Your task to perform on an android device: Open privacy settings Image 0: 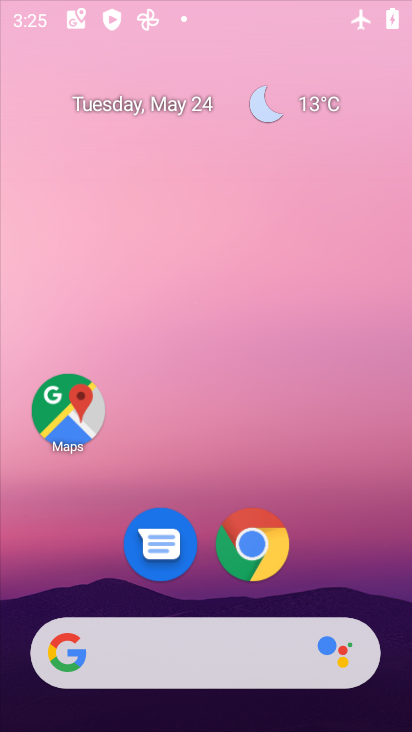
Step 0: drag from (361, 533) to (344, 116)
Your task to perform on an android device: Open privacy settings Image 1: 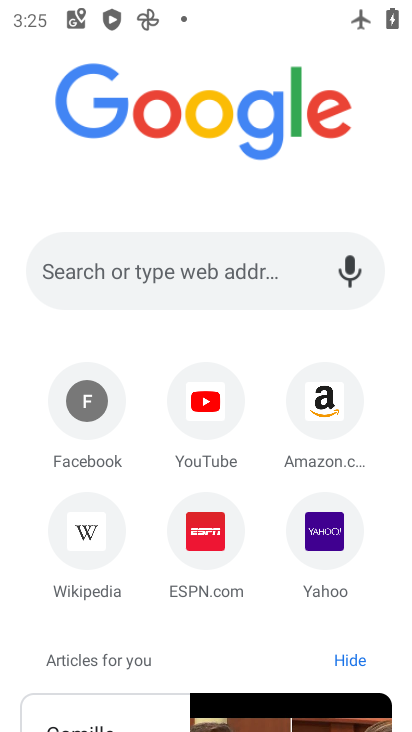
Step 1: drag from (363, 130) to (406, 530)
Your task to perform on an android device: Open privacy settings Image 2: 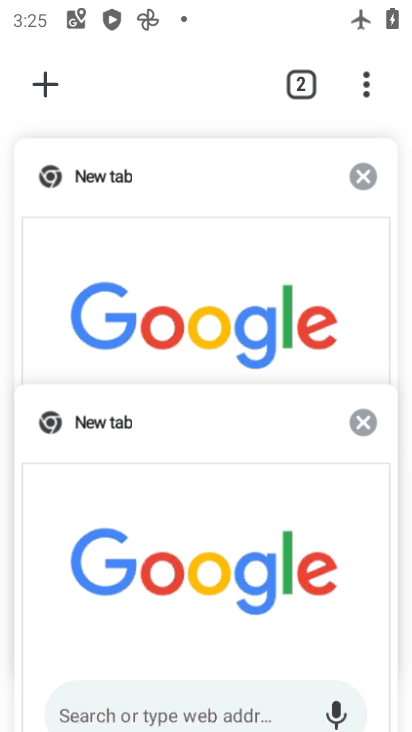
Step 2: click (366, 91)
Your task to perform on an android device: Open privacy settings Image 3: 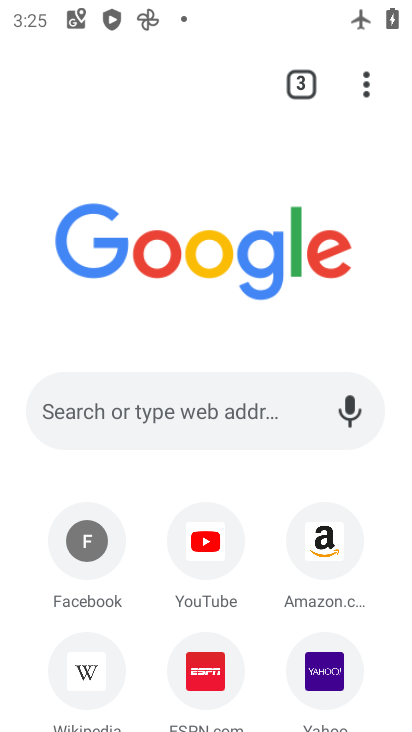
Step 3: drag from (366, 91) to (151, 596)
Your task to perform on an android device: Open privacy settings Image 4: 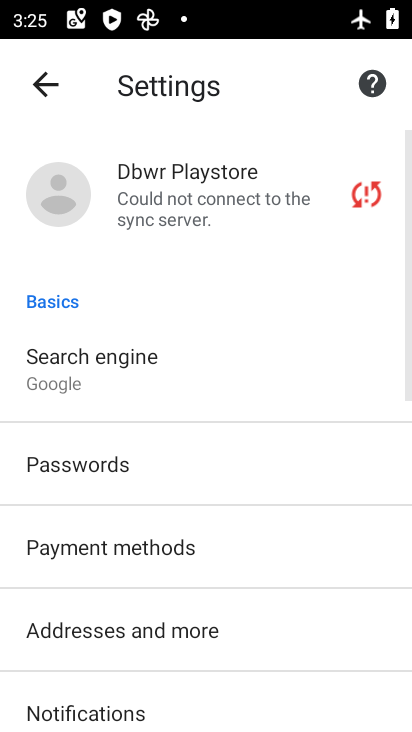
Step 4: drag from (155, 602) to (175, 260)
Your task to perform on an android device: Open privacy settings Image 5: 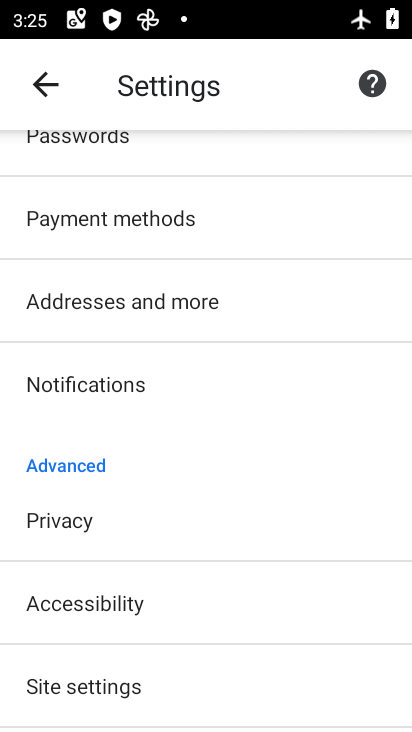
Step 5: click (90, 530)
Your task to perform on an android device: Open privacy settings Image 6: 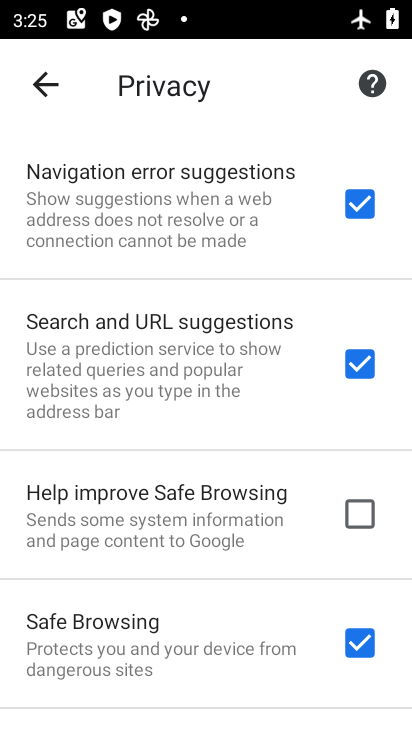
Step 6: task complete